Your task to perform on an android device: turn pop-ups on in chrome Image 0: 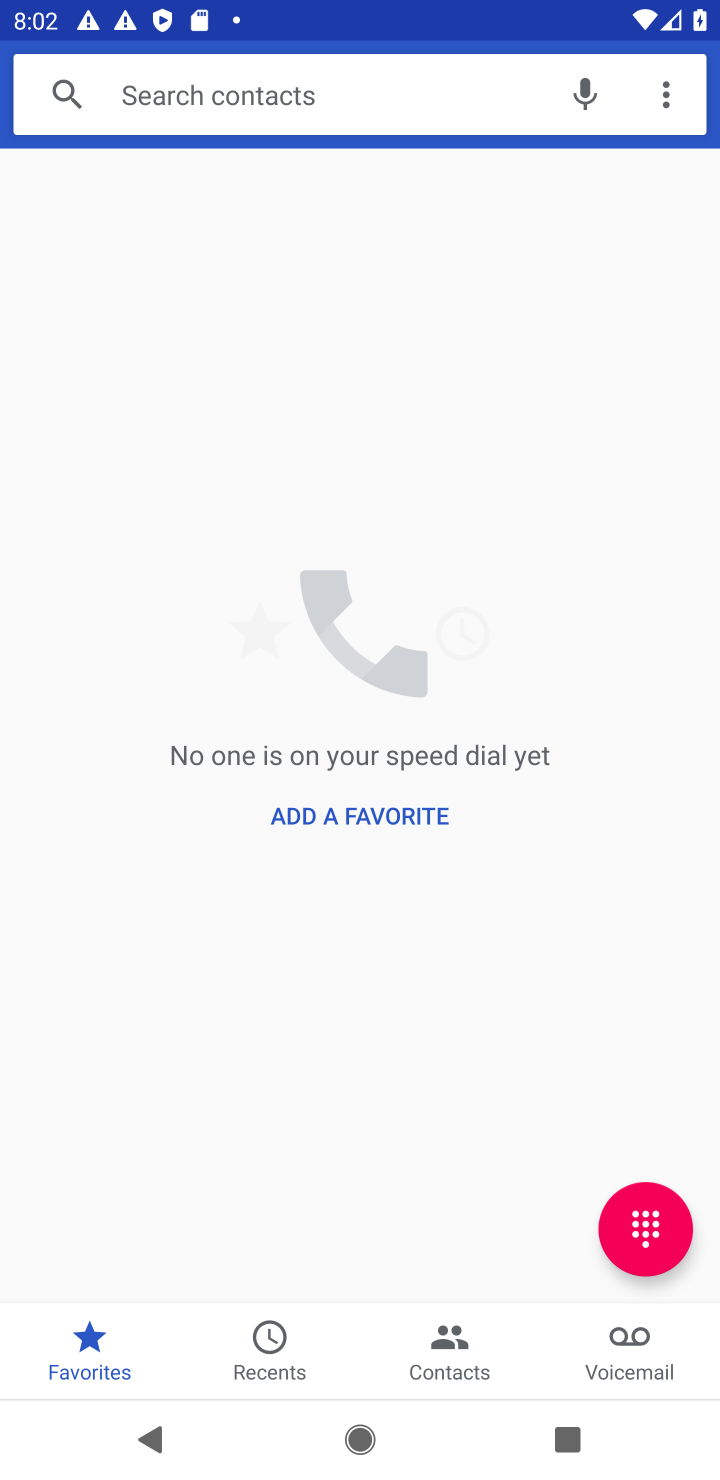
Step 0: press home button
Your task to perform on an android device: turn pop-ups on in chrome Image 1: 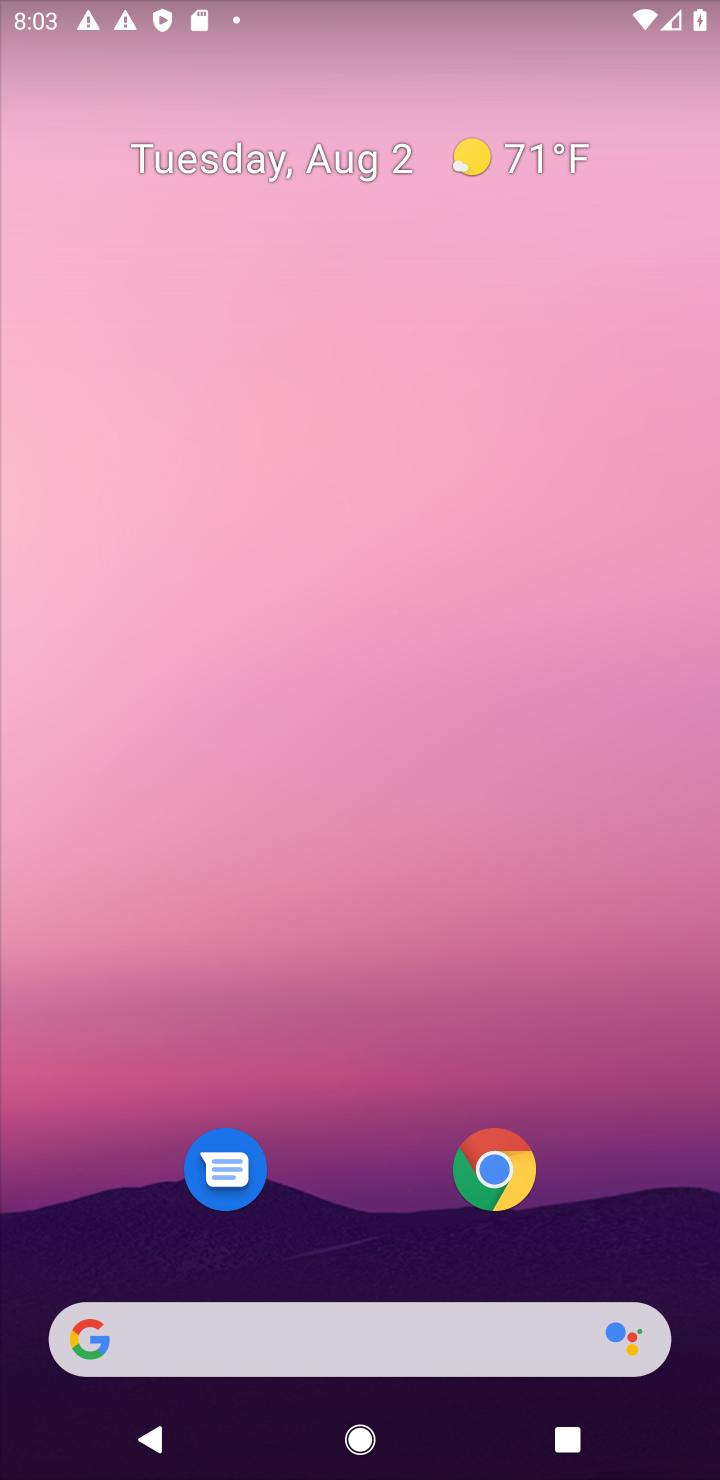
Step 1: click (505, 1174)
Your task to perform on an android device: turn pop-ups on in chrome Image 2: 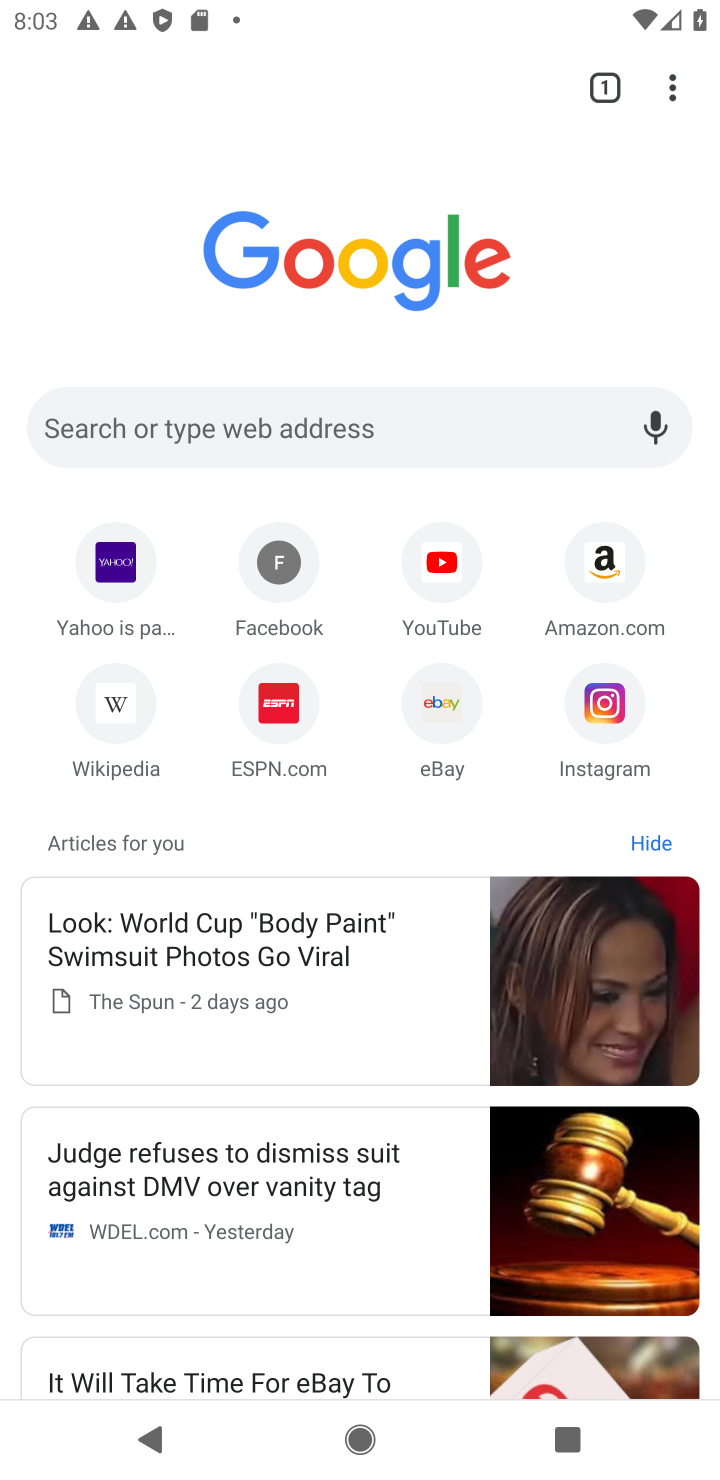
Step 2: click (672, 81)
Your task to perform on an android device: turn pop-ups on in chrome Image 3: 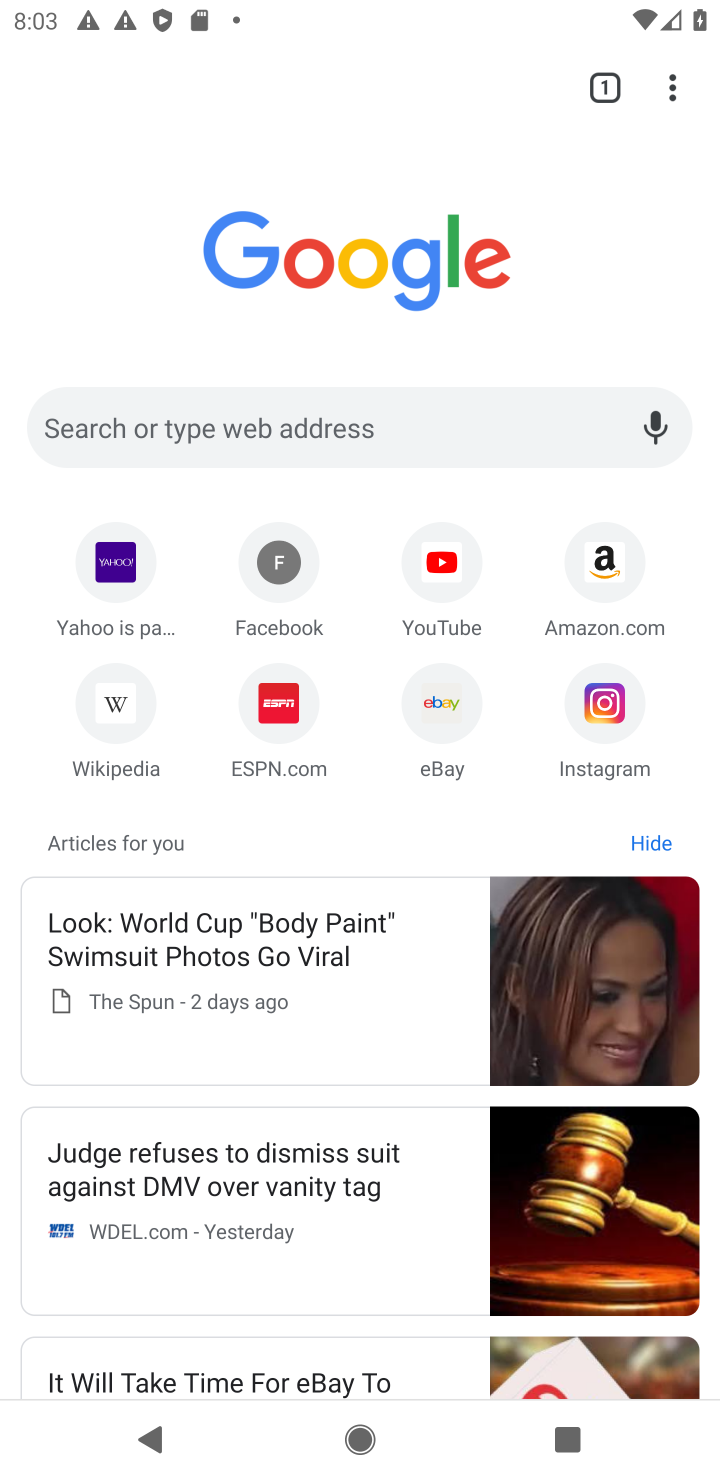
Step 3: click (672, 81)
Your task to perform on an android device: turn pop-ups on in chrome Image 4: 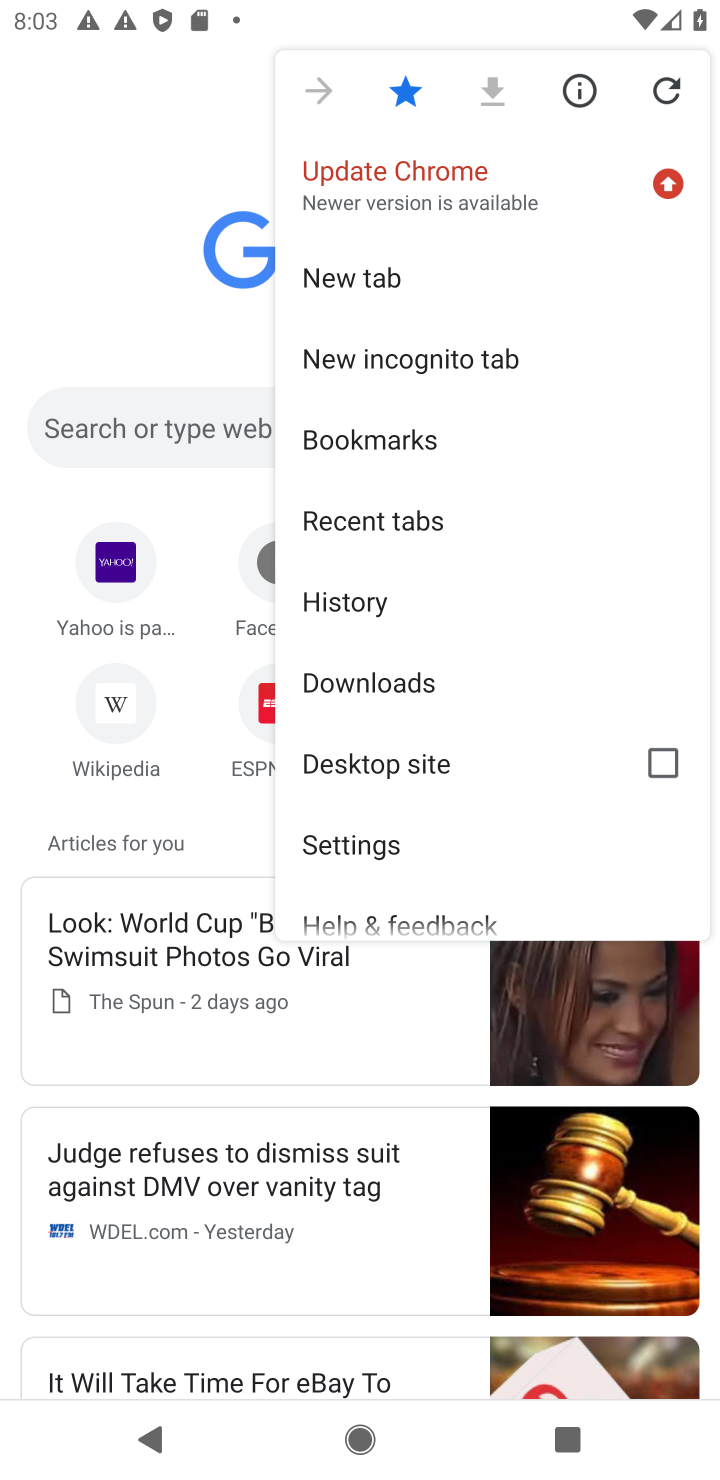
Step 4: click (366, 845)
Your task to perform on an android device: turn pop-ups on in chrome Image 5: 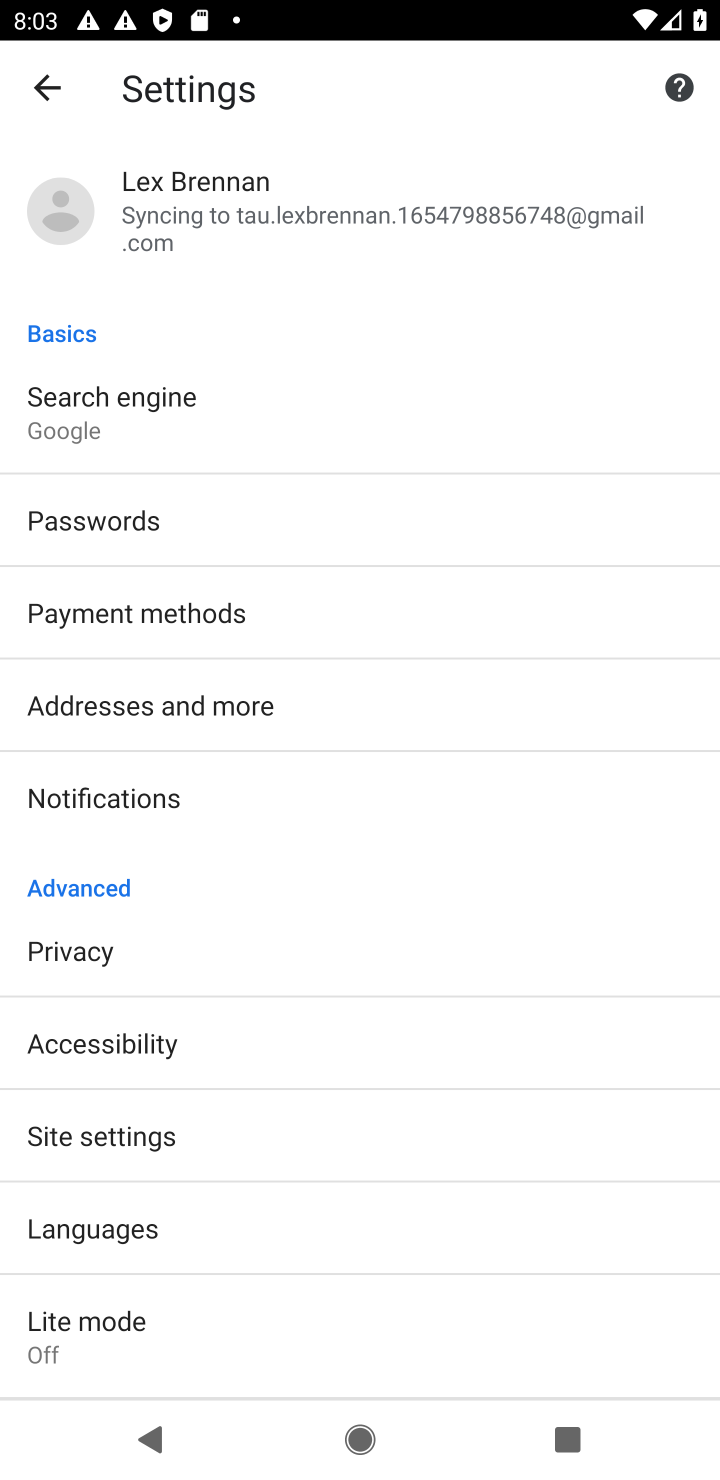
Step 5: click (143, 1121)
Your task to perform on an android device: turn pop-ups on in chrome Image 6: 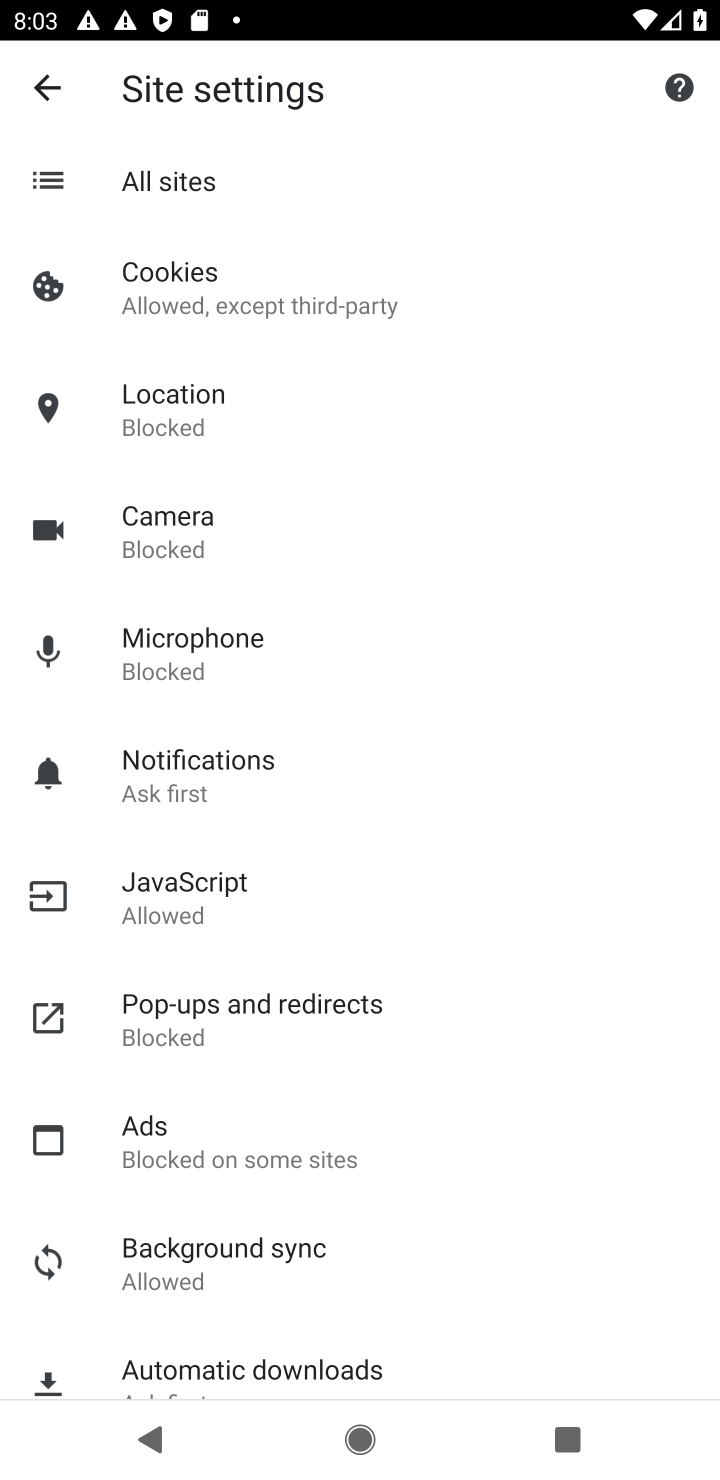
Step 6: click (207, 1024)
Your task to perform on an android device: turn pop-ups on in chrome Image 7: 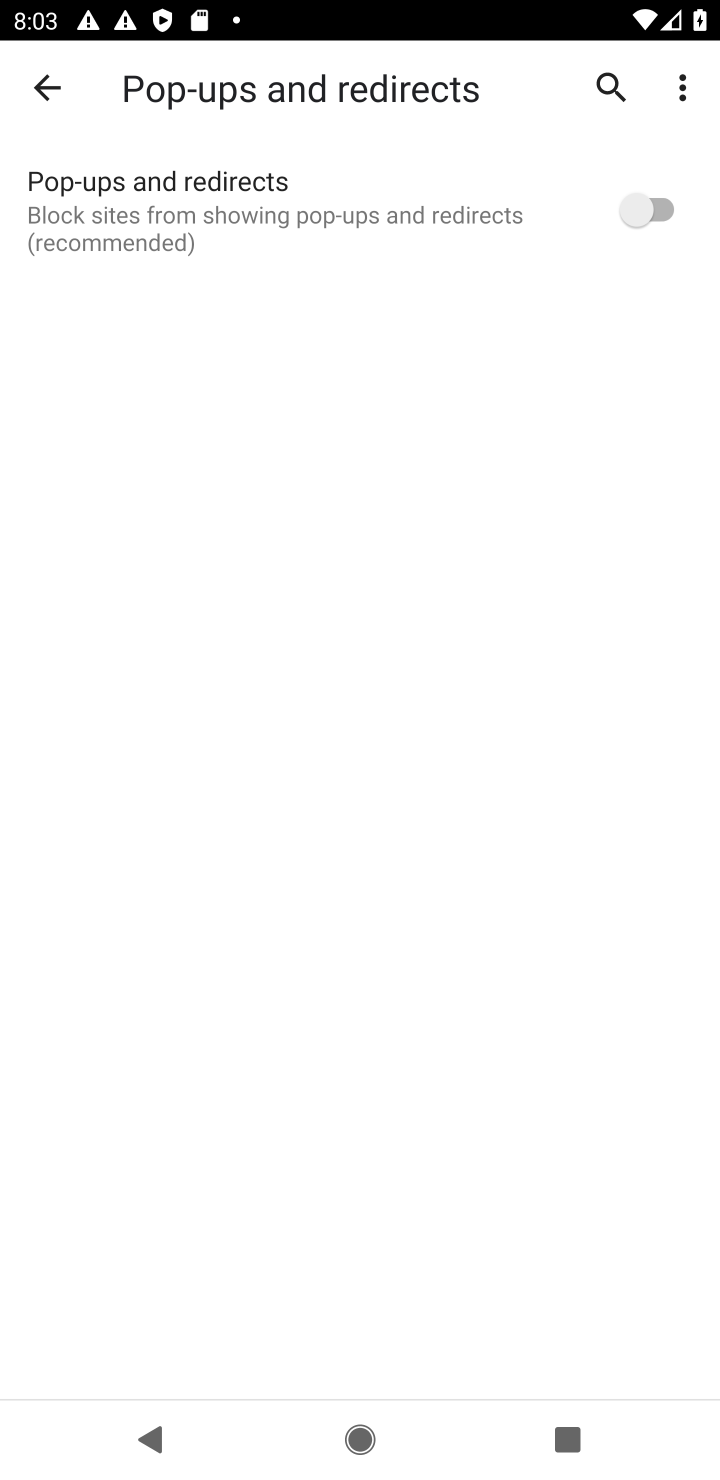
Step 7: click (651, 200)
Your task to perform on an android device: turn pop-ups on in chrome Image 8: 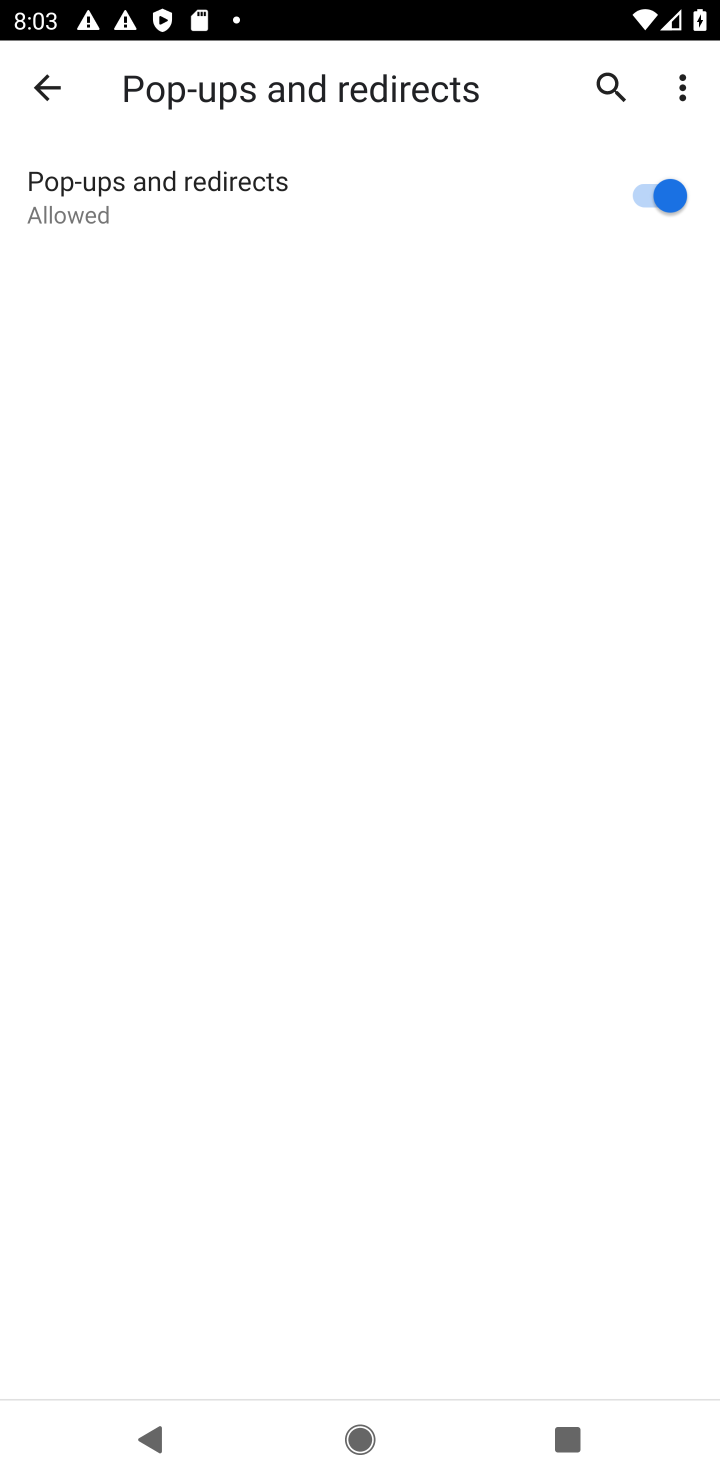
Step 8: task complete